Your task to perform on an android device: turn off javascript in the chrome app Image 0: 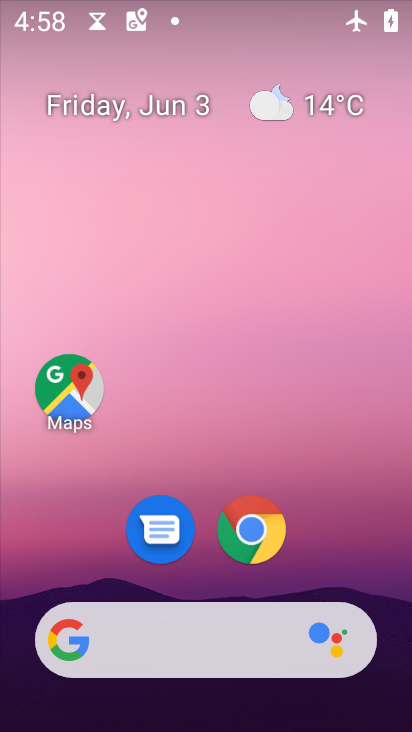
Step 0: drag from (348, 558) to (411, 5)
Your task to perform on an android device: turn off javascript in the chrome app Image 1: 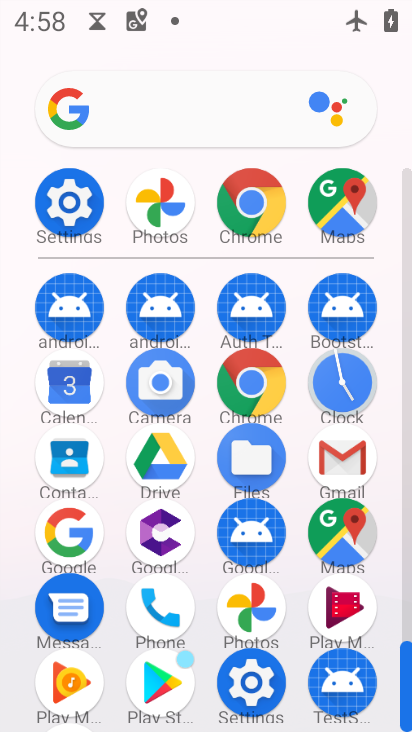
Step 1: click (263, 184)
Your task to perform on an android device: turn off javascript in the chrome app Image 2: 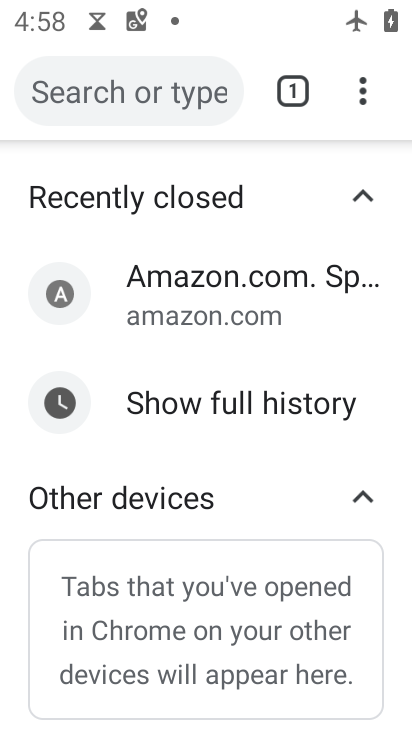
Step 2: drag from (352, 95) to (98, 572)
Your task to perform on an android device: turn off javascript in the chrome app Image 3: 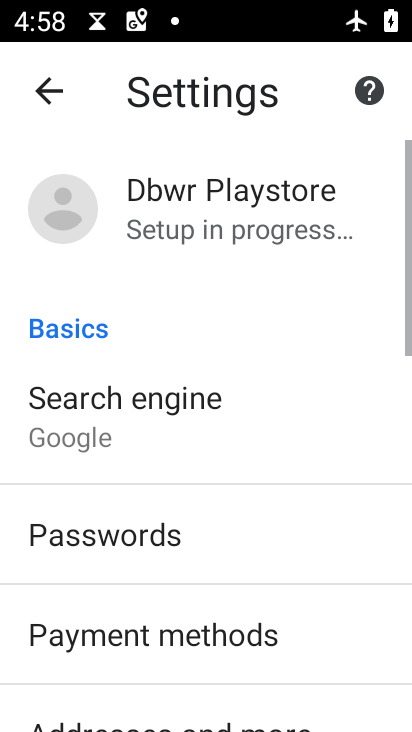
Step 3: drag from (151, 580) to (217, 110)
Your task to perform on an android device: turn off javascript in the chrome app Image 4: 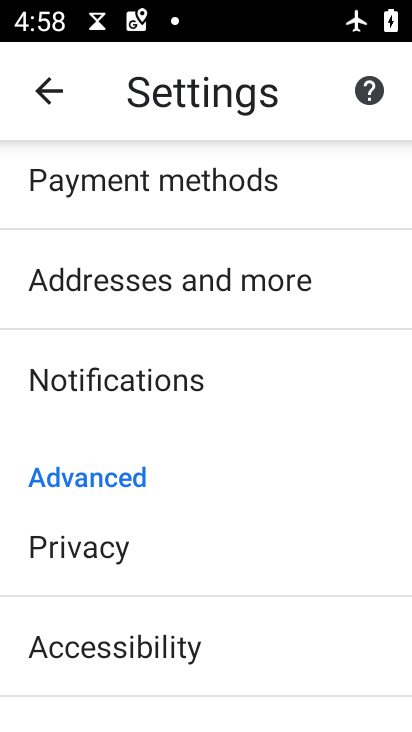
Step 4: drag from (134, 649) to (216, 39)
Your task to perform on an android device: turn off javascript in the chrome app Image 5: 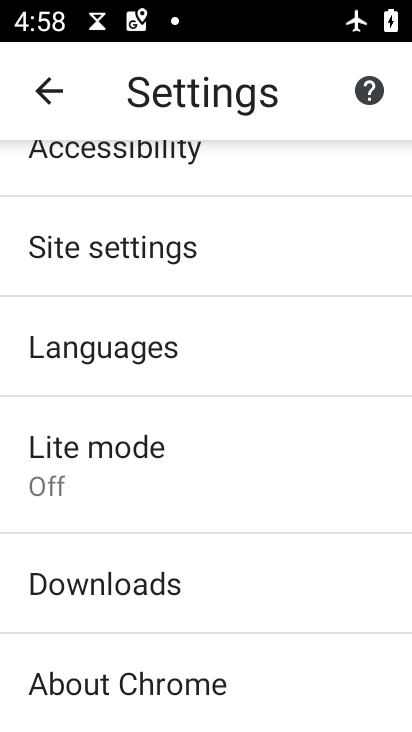
Step 5: click (81, 241)
Your task to perform on an android device: turn off javascript in the chrome app Image 6: 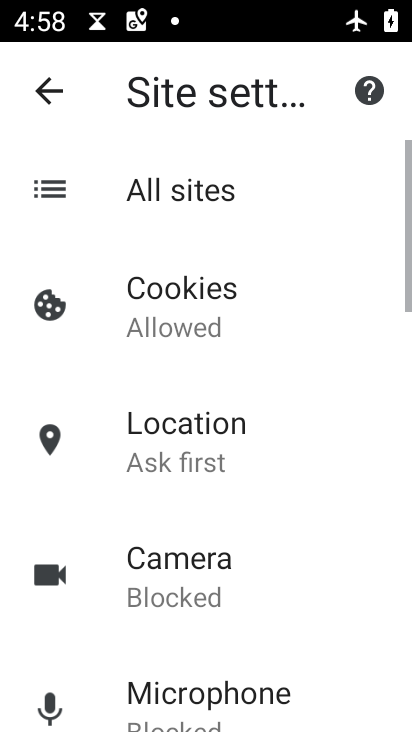
Step 6: drag from (142, 600) to (206, 98)
Your task to perform on an android device: turn off javascript in the chrome app Image 7: 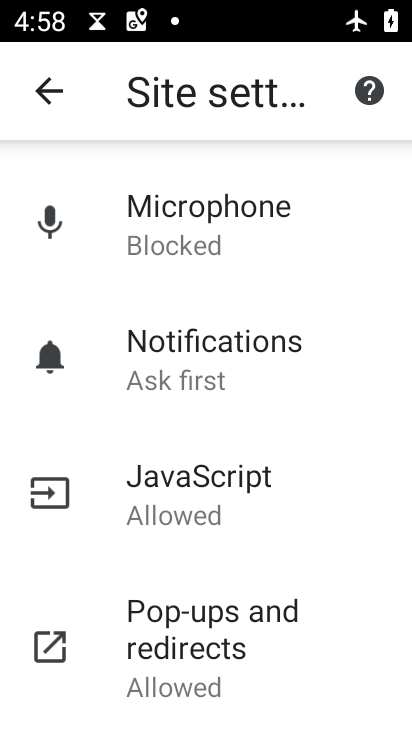
Step 7: click (168, 512)
Your task to perform on an android device: turn off javascript in the chrome app Image 8: 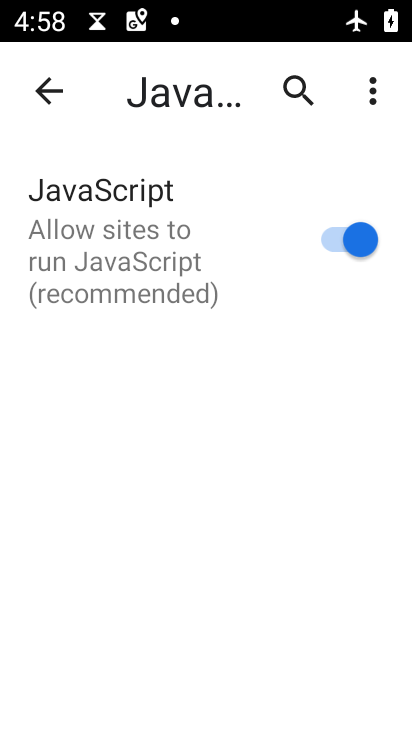
Step 8: click (333, 237)
Your task to perform on an android device: turn off javascript in the chrome app Image 9: 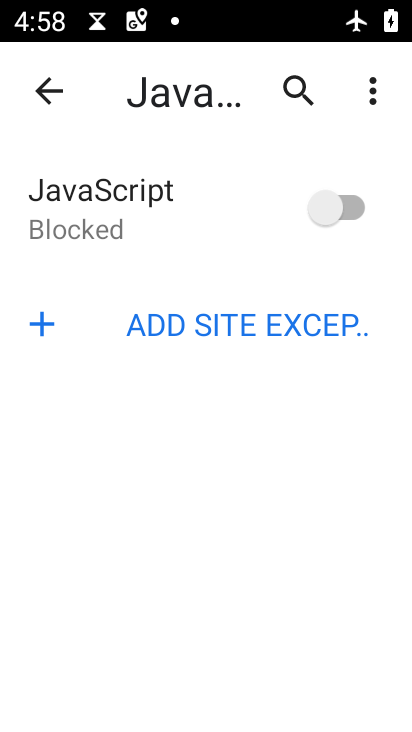
Step 9: task complete